Your task to perform on an android device: all mails in gmail Image 0: 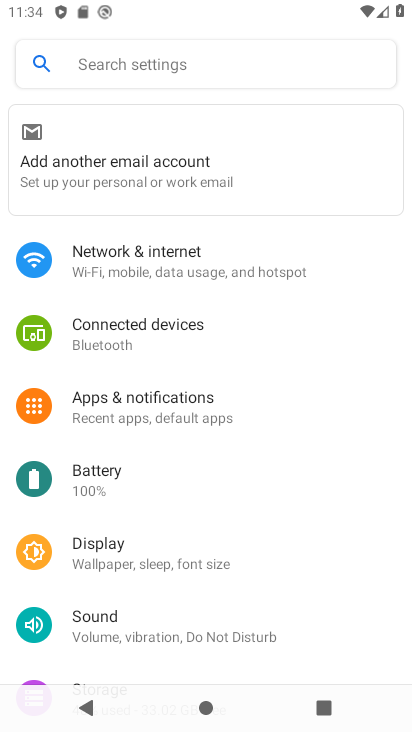
Step 0: press home button
Your task to perform on an android device: all mails in gmail Image 1: 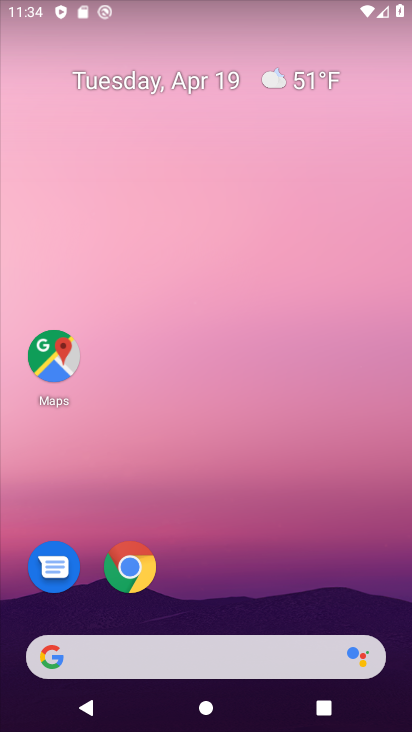
Step 1: drag from (236, 401) to (318, 9)
Your task to perform on an android device: all mails in gmail Image 2: 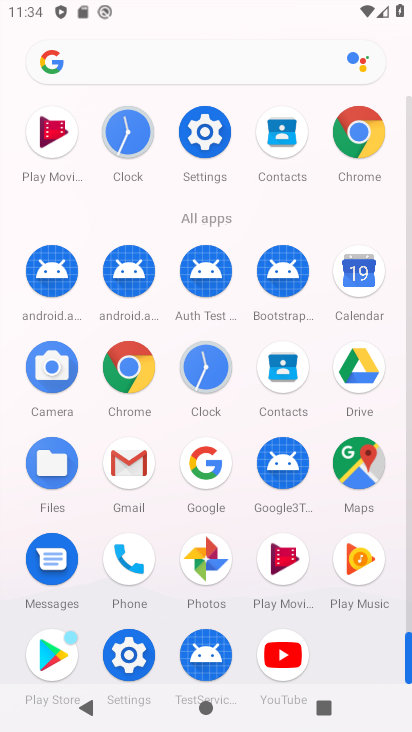
Step 2: click (134, 463)
Your task to perform on an android device: all mails in gmail Image 3: 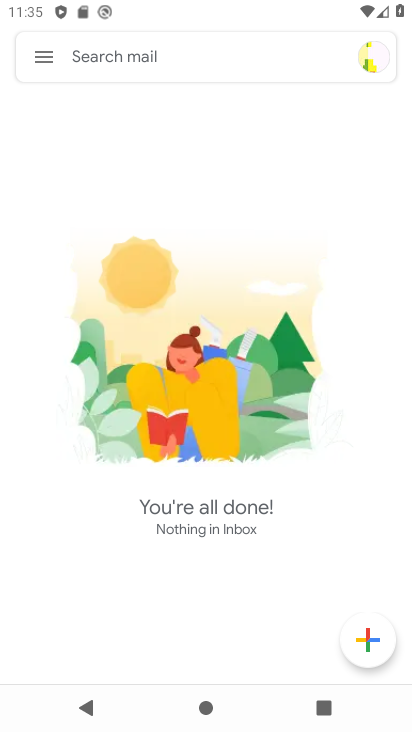
Step 3: click (44, 56)
Your task to perform on an android device: all mails in gmail Image 4: 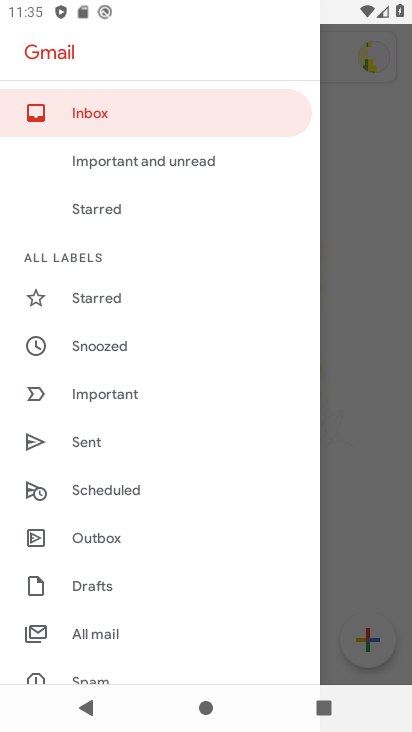
Step 4: drag from (97, 548) to (131, 243)
Your task to perform on an android device: all mails in gmail Image 5: 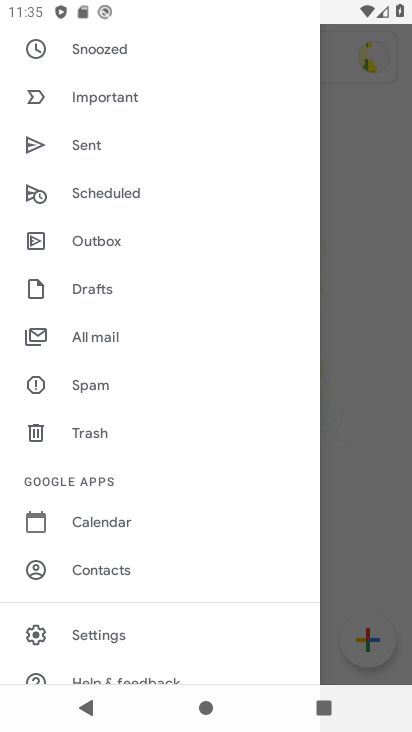
Step 5: click (94, 340)
Your task to perform on an android device: all mails in gmail Image 6: 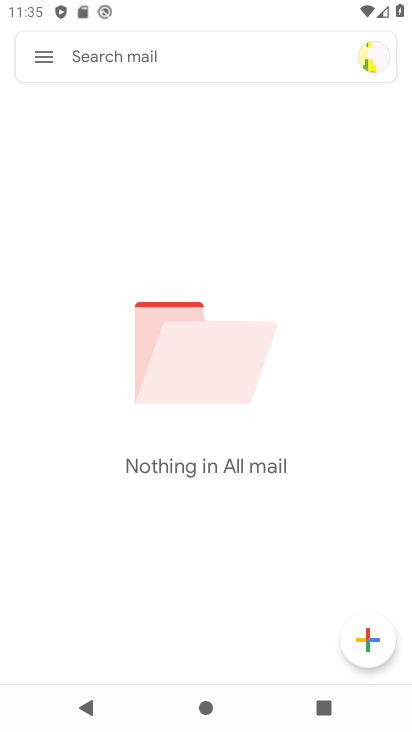
Step 6: task complete